Your task to perform on an android device: turn on translation in the chrome app Image 0: 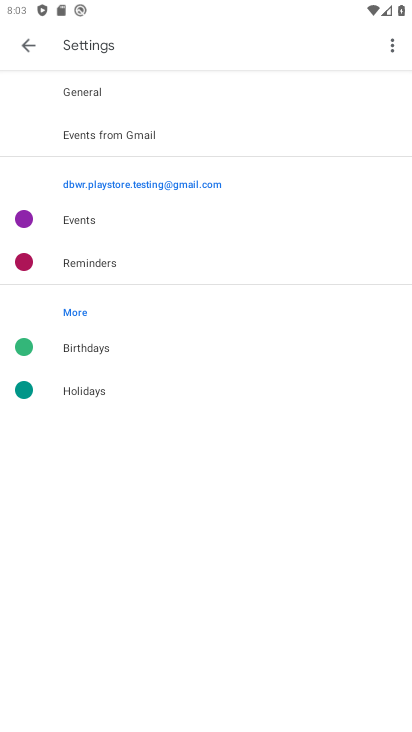
Step 0: press home button
Your task to perform on an android device: turn on translation in the chrome app Image 1: 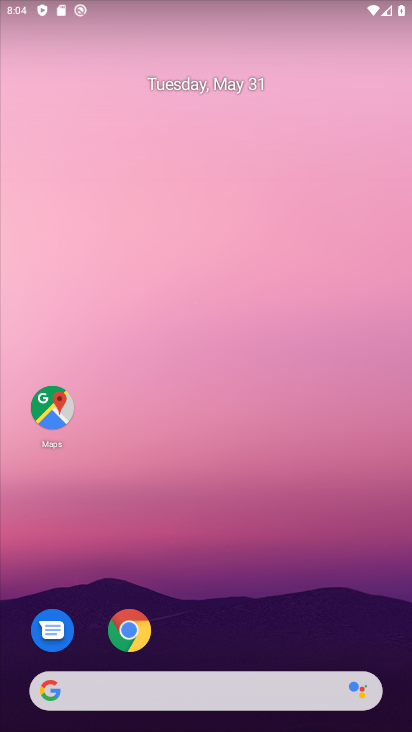
Step 1: click (135, 639)
Your task to perform on an android device: turn on translation in the chrome app Image 2: 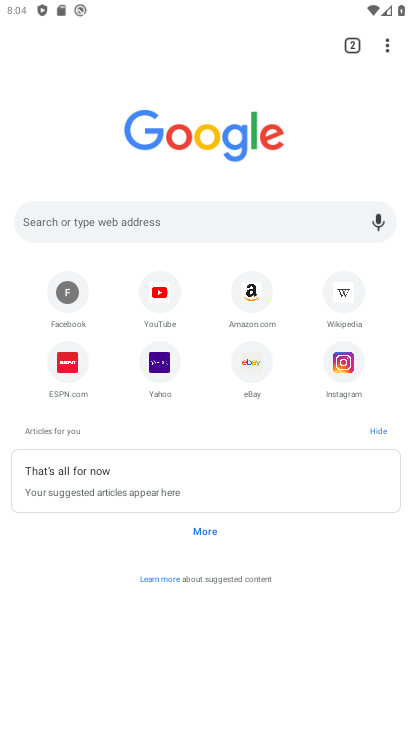
Step 2: drag from (389, 41) to (225, 380)
Your task to perform on an android device: turn on translation in the chrome app Image 3: 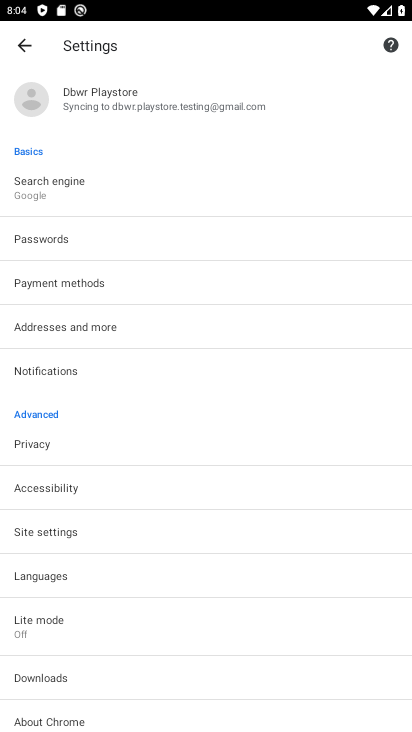
Step 3: drag from (234, 708) to (239, 340)
Your task to perform on an android device: turn on translation in the chrome app Image 4: 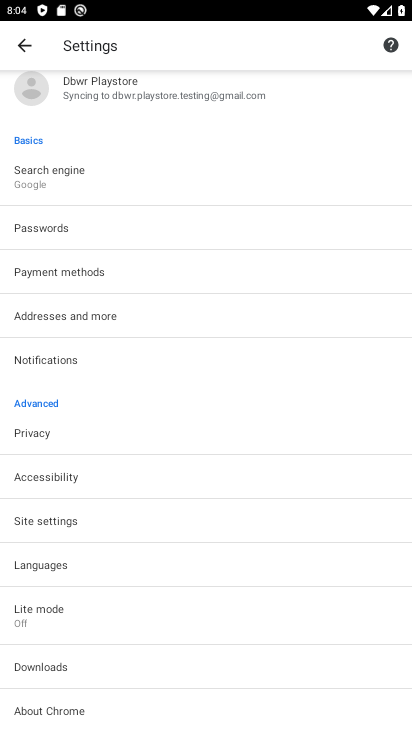
Step 4: click (64, 561)
Your task to perform on an android device: turn on translation in the chrome app Image 5: 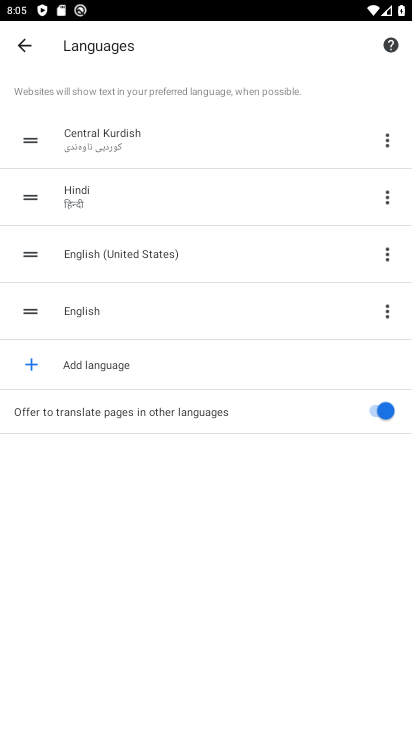
Step 5: task complete